Your task to perform on an android device: toggle show notifications on the lock screen Image 0: 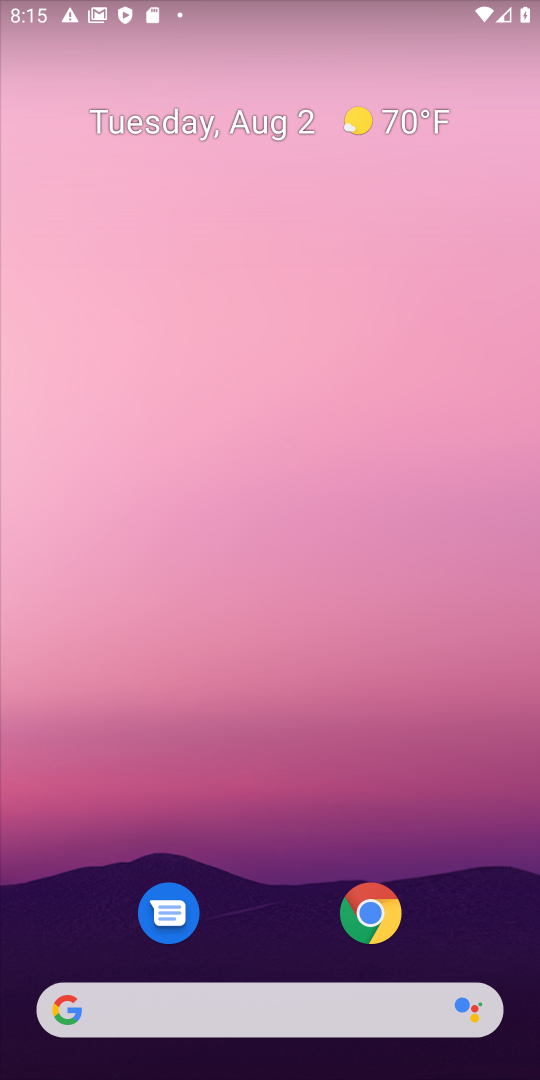
Step 0: drag from (225, 788) to (311, 397)
Your task to perform on an android device: toggle show notifications on the lock screen Image 1: 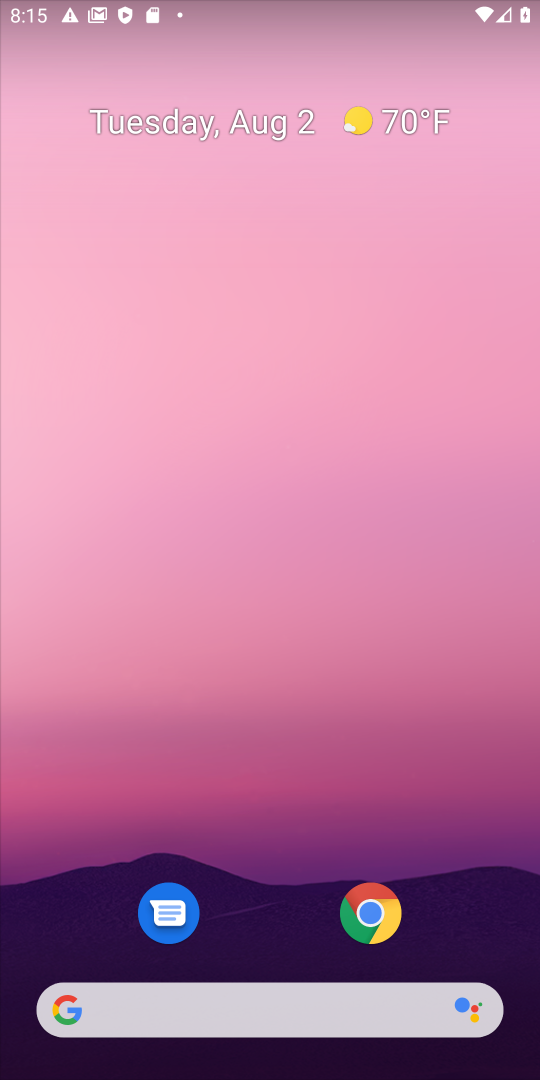
Step 1: drag from (320, 808) to (377, 184)
Your task to perform on an android device: toggle show notifications on the lock screen Image 2: 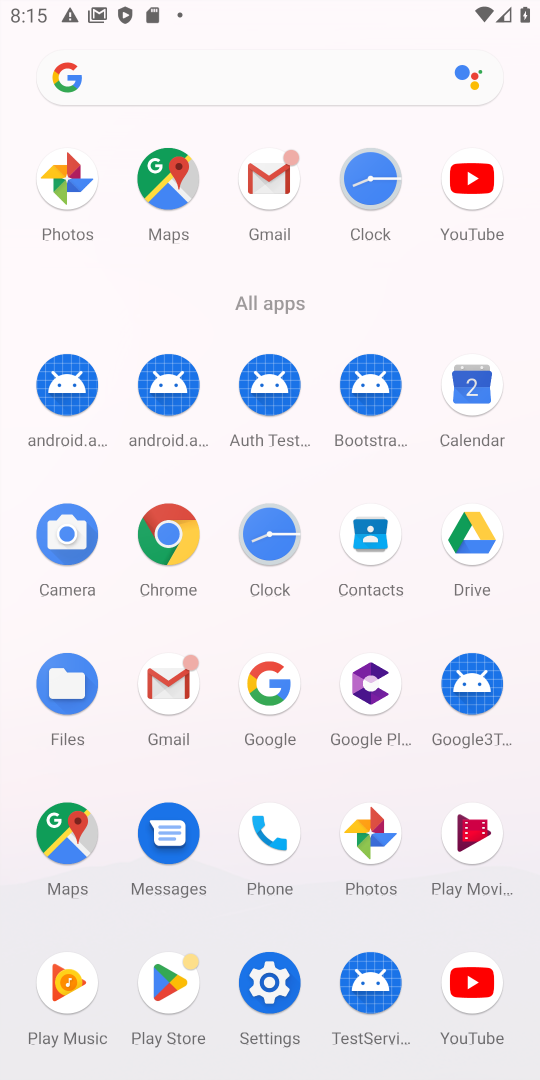
Step 2: click (296, 977)
Your task to perform on an android device: toggle show notifications on the lock screen Image 3: 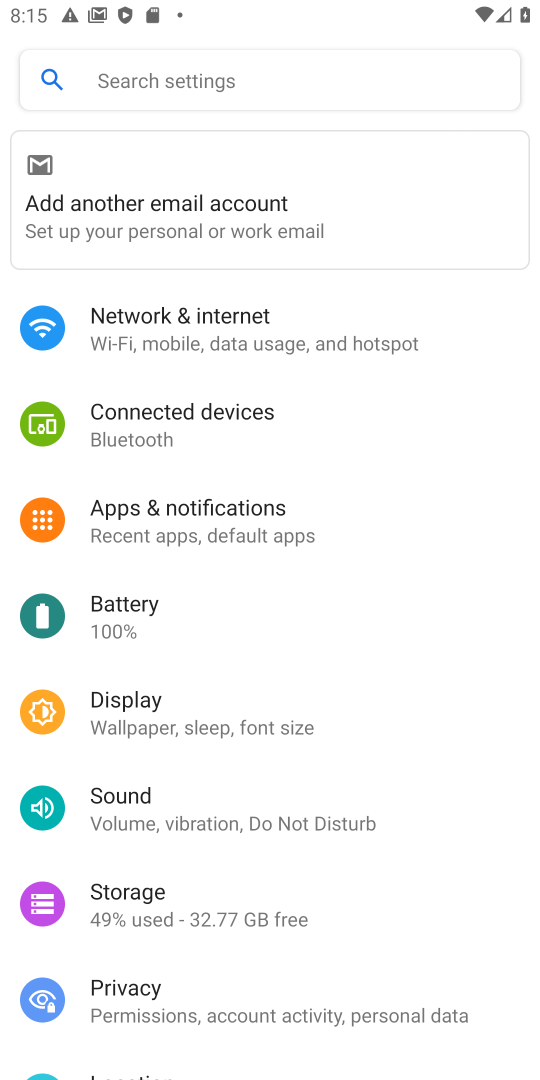
Step 3: drag from (238, 800) to (250, 428)
Your task to perform on an android device: toggle show notifications on the lock screen Image 4: 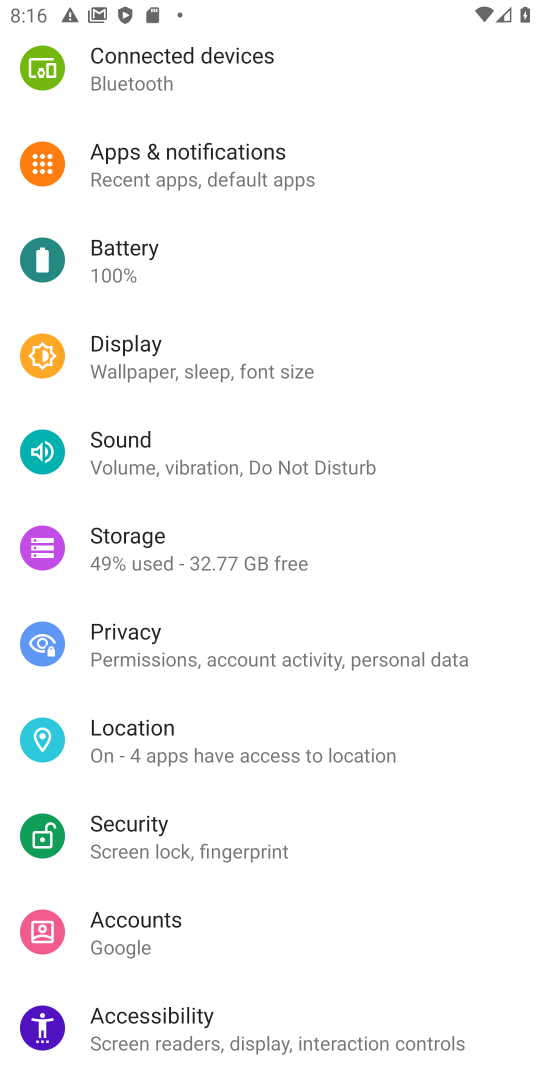
Step 4: click (198, 830)
Your task to perform on an android device: toggle show notifications on the lock screen Image 5: 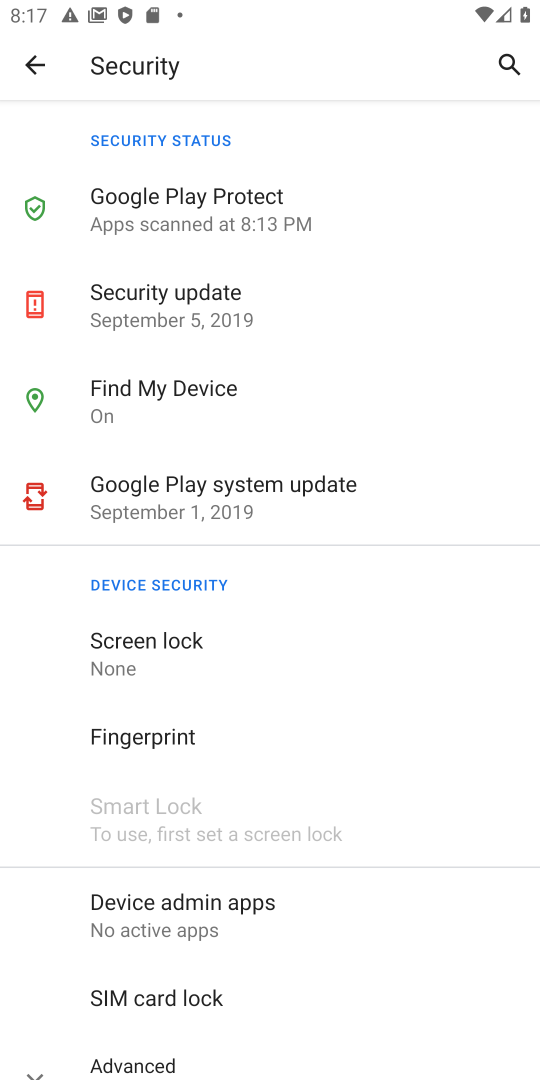
Step 5: task complete